Your task to perform on an android device: Show me the alarms in the clock app Image 0: 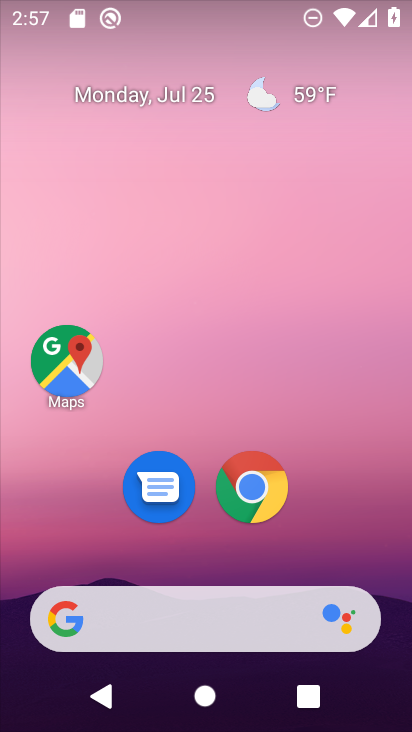
Step 0: drag from (91, 520) to (179, 8)
Your task to perform on an android device: Show me the alarms in the clock app Image 1: 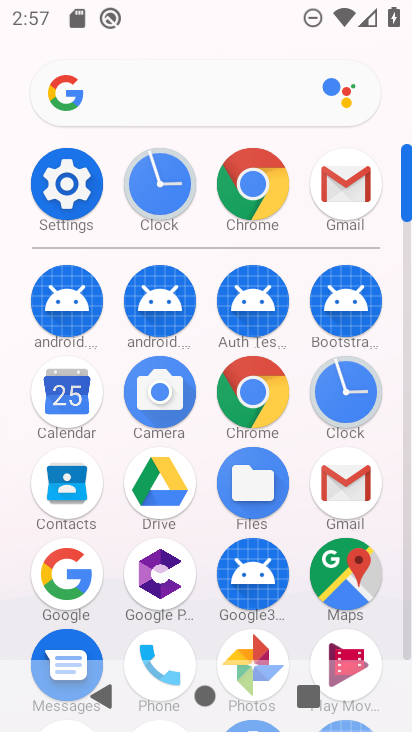
Step 1: click (337, 412)
Your task to perform on an android device: Show me the alarms in the clock app Image 2: 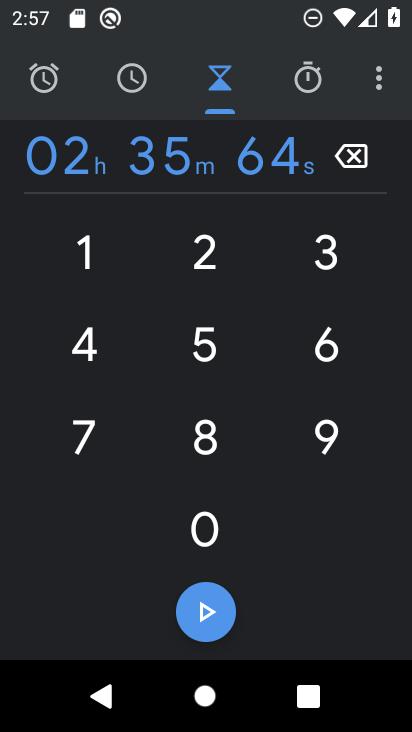
Step 2: click (47, 79)
Your task to perform on an android device: Show me the alarms in the clock app Image 3: 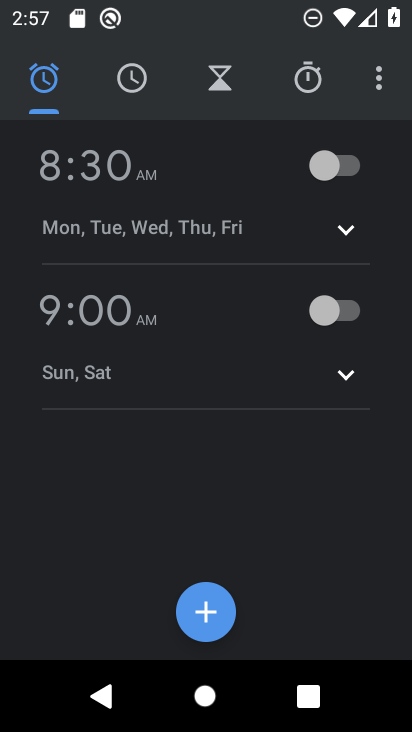
Step 3: task complete